Your task to perform on an android device: see sites visited before in the chrome app Image 0: 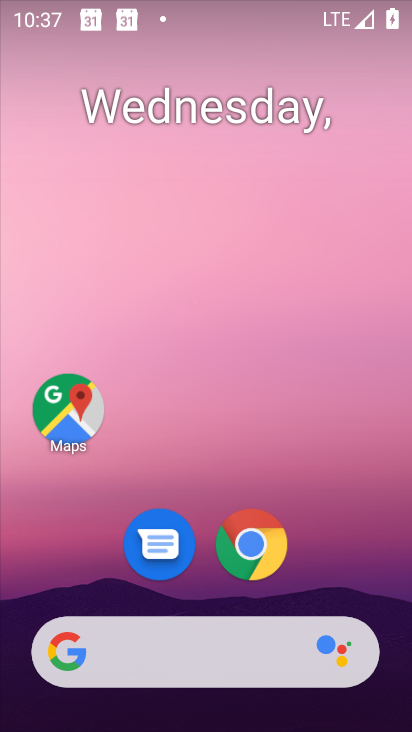
Step 0: click (247, 544)
Your task to perform on an android device: see sites visited before in the chrome app Image 1: 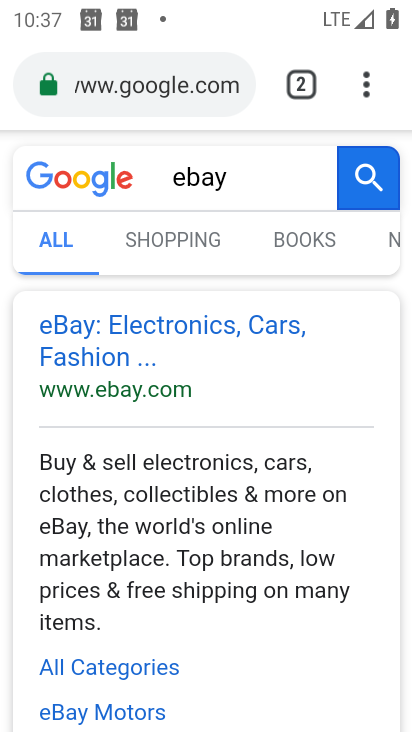
Step 1: click (367, 74)
Your task to perform on an android device: see sites visited before in the chrome app Image 2: 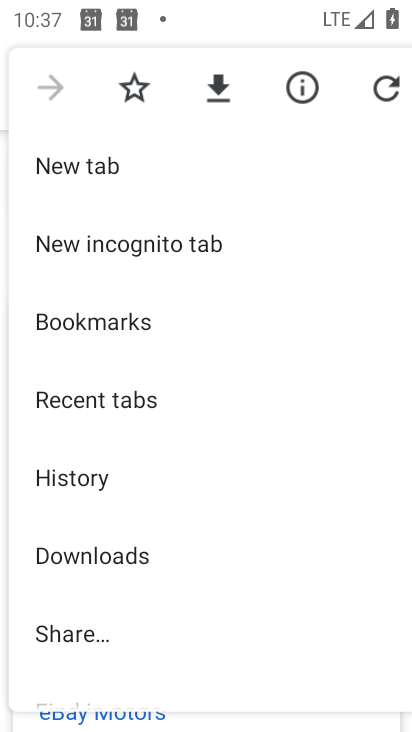
Step 2: click (154, 486)
Your task to perform on an android device: see sites visited before in the chrome app Image 3: 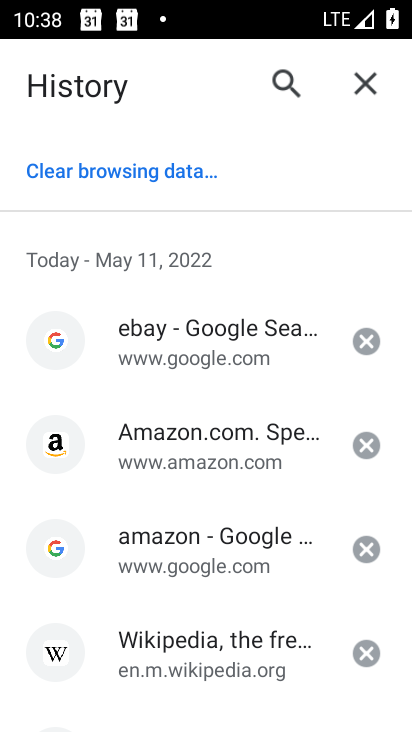
Step 3: task complete